Your task to perform on an android device: Empty the shopping cart on ebay. Image 0: 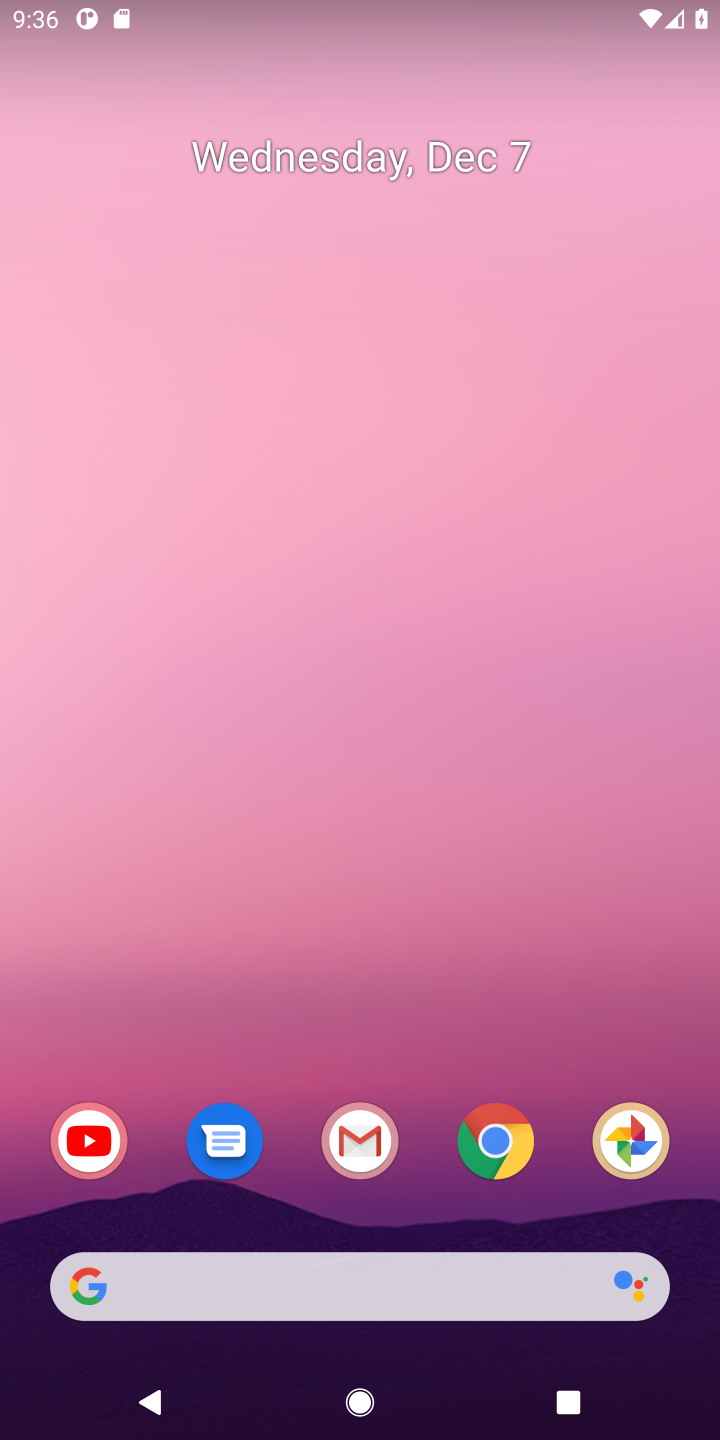
Step 0: press home button
Your task to perform on an android device: Empty the shopping cart on ebay. Image 1: 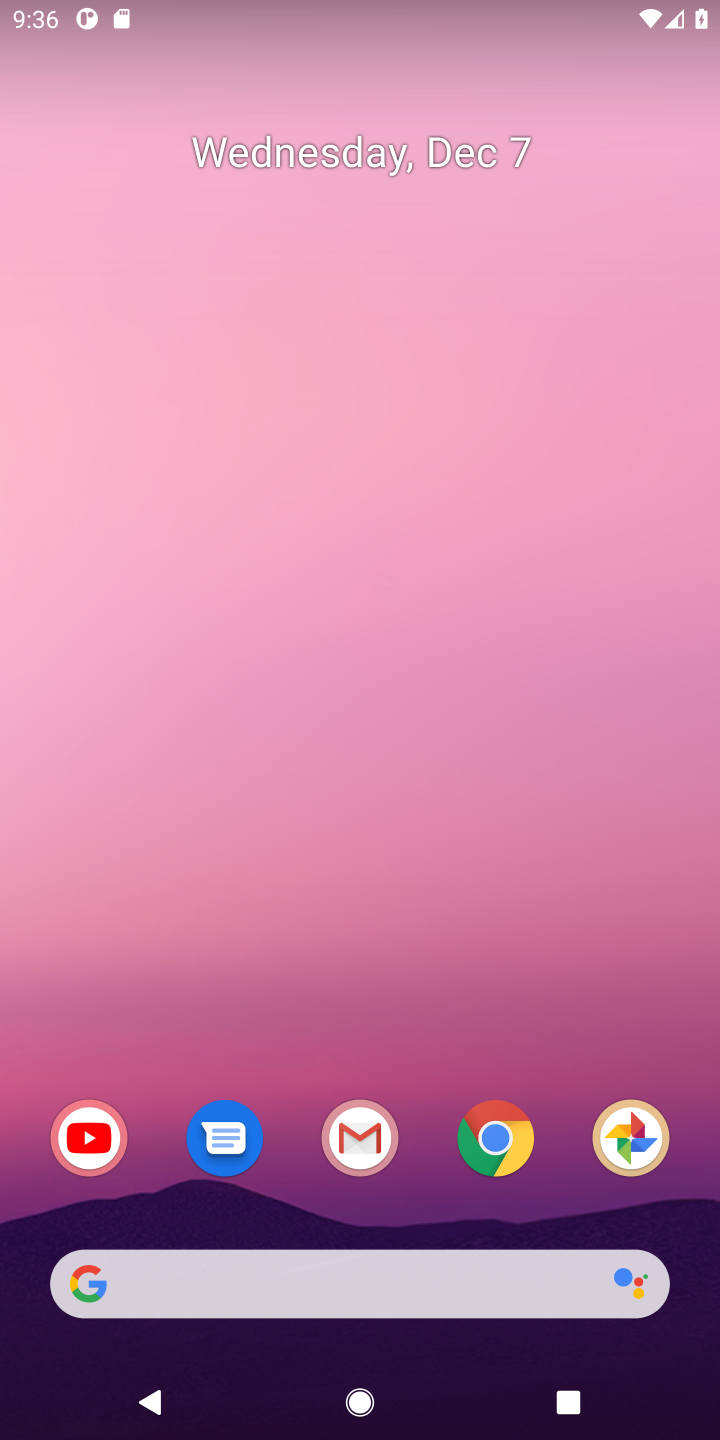
Step 1: click (138, 1283)
Your task to perform on an android device: Empty the shopping cart on ebay. Image 2: 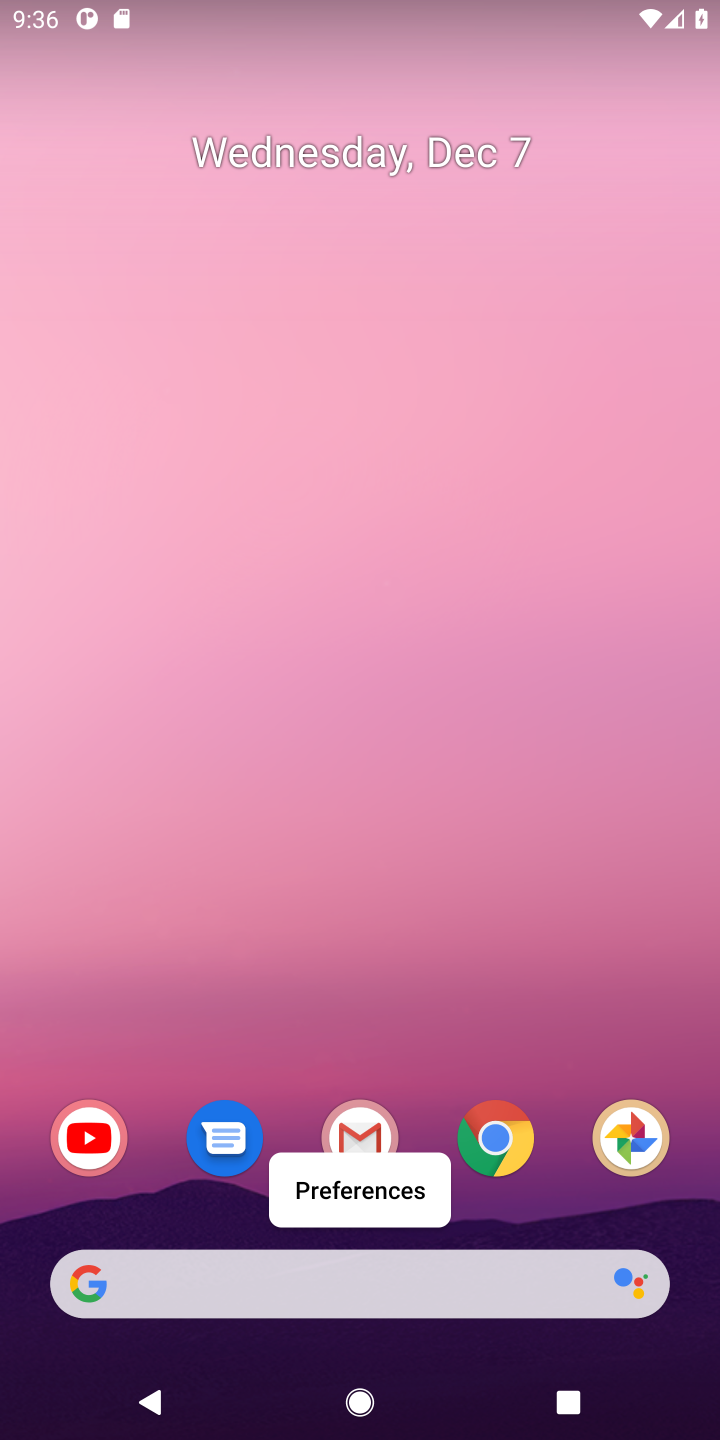
Step 2: click (140, 1277)
Your task to perform on an android device: Empty the shopping cart on ebay. Image 3: 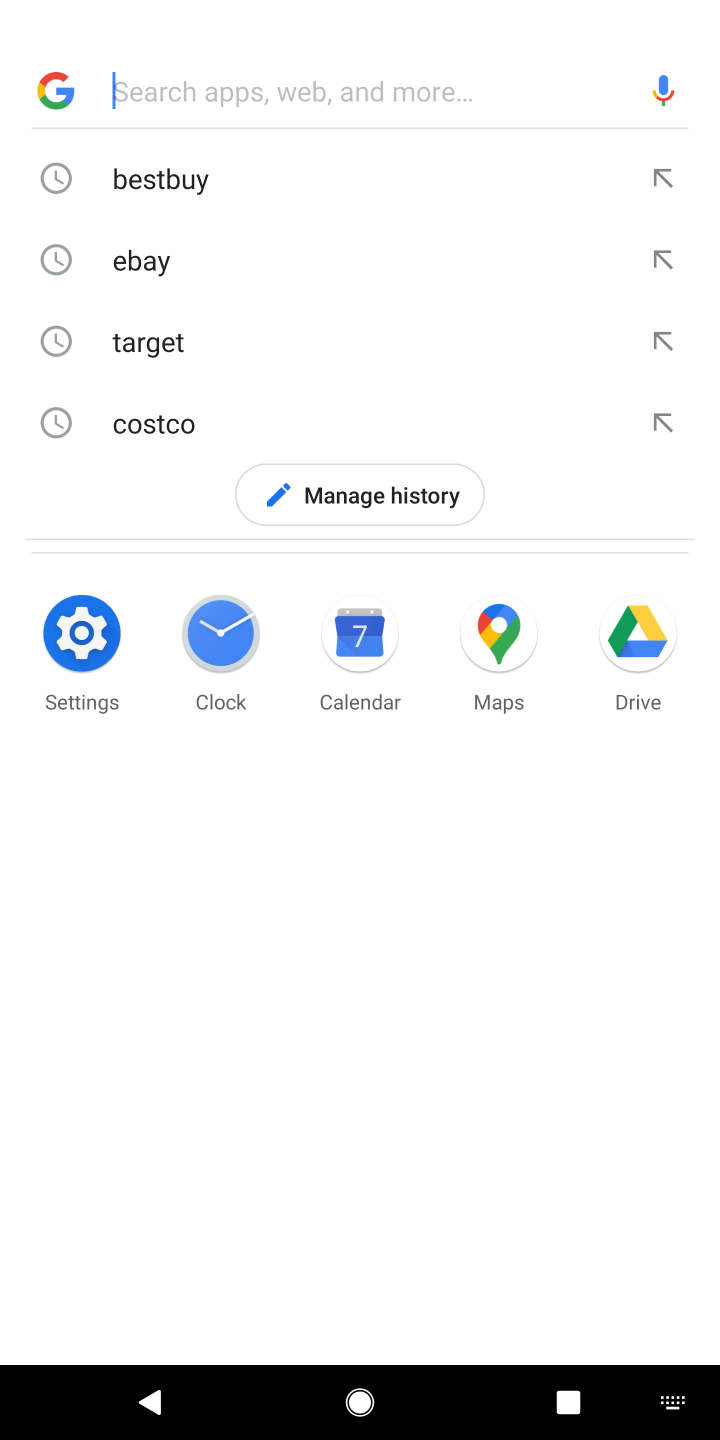
Step 3: type "ebay"
Your task to perform on an android device: Empty the shopping cart on ebay. Image 4: 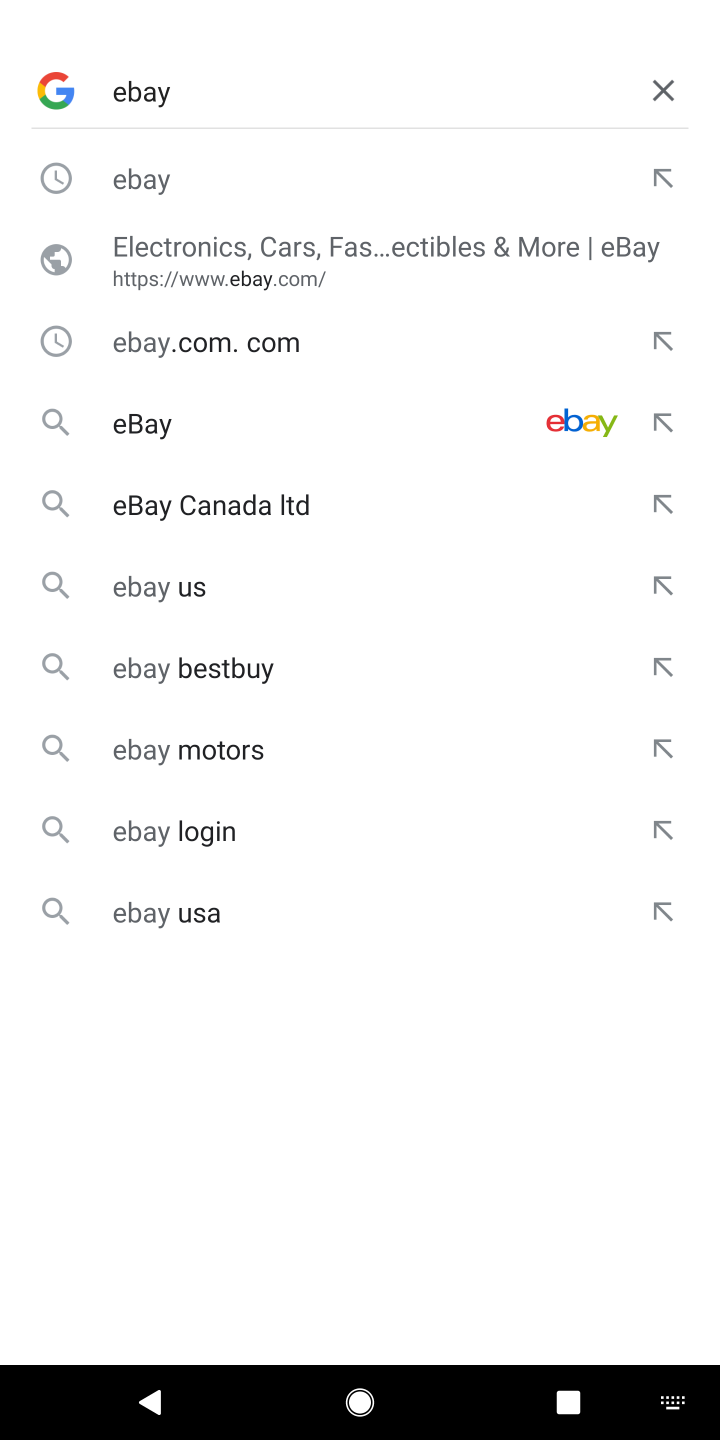
Step 4: press enter
Your task to perform on an android device: Empty the shopping cart on ebay. Image 5: 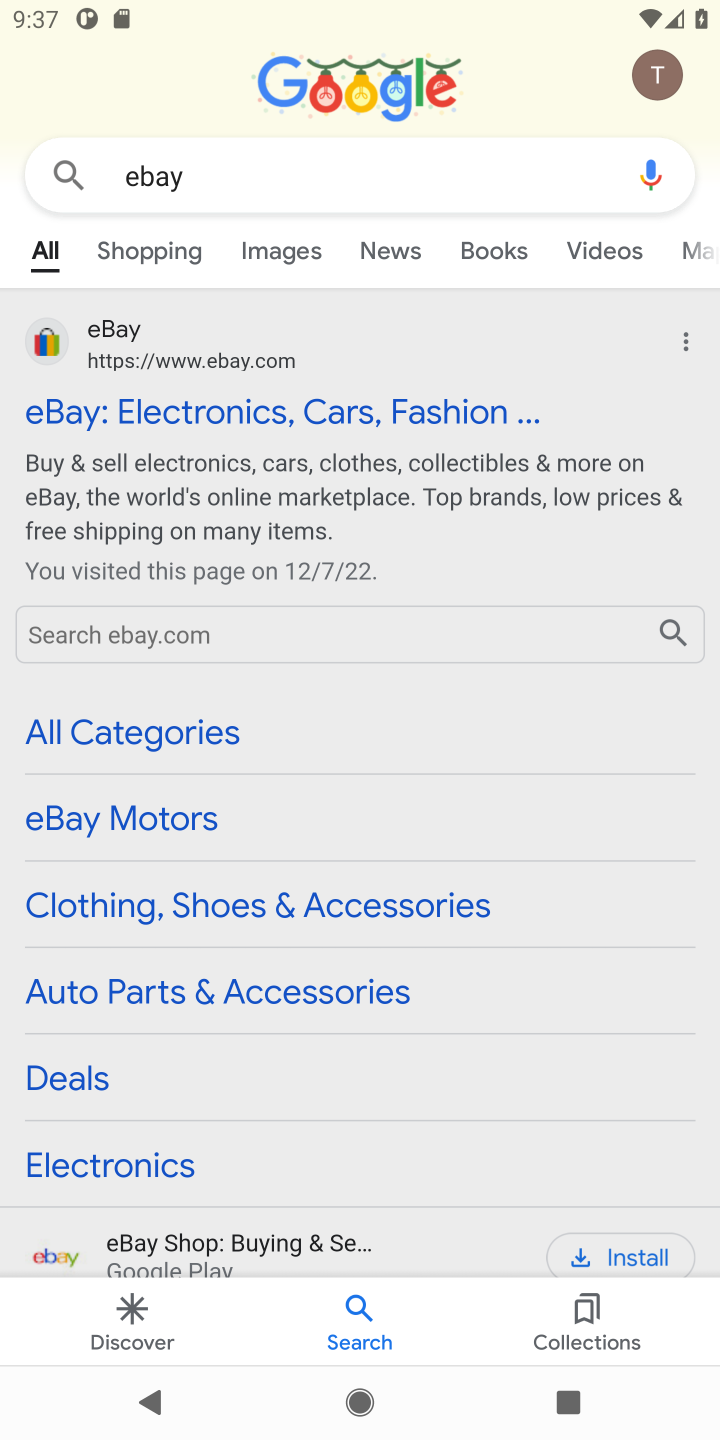
Step 5: click (433, 414)
Your task to perform on an android device: Empty the shopping cart on ebay. Image 6: 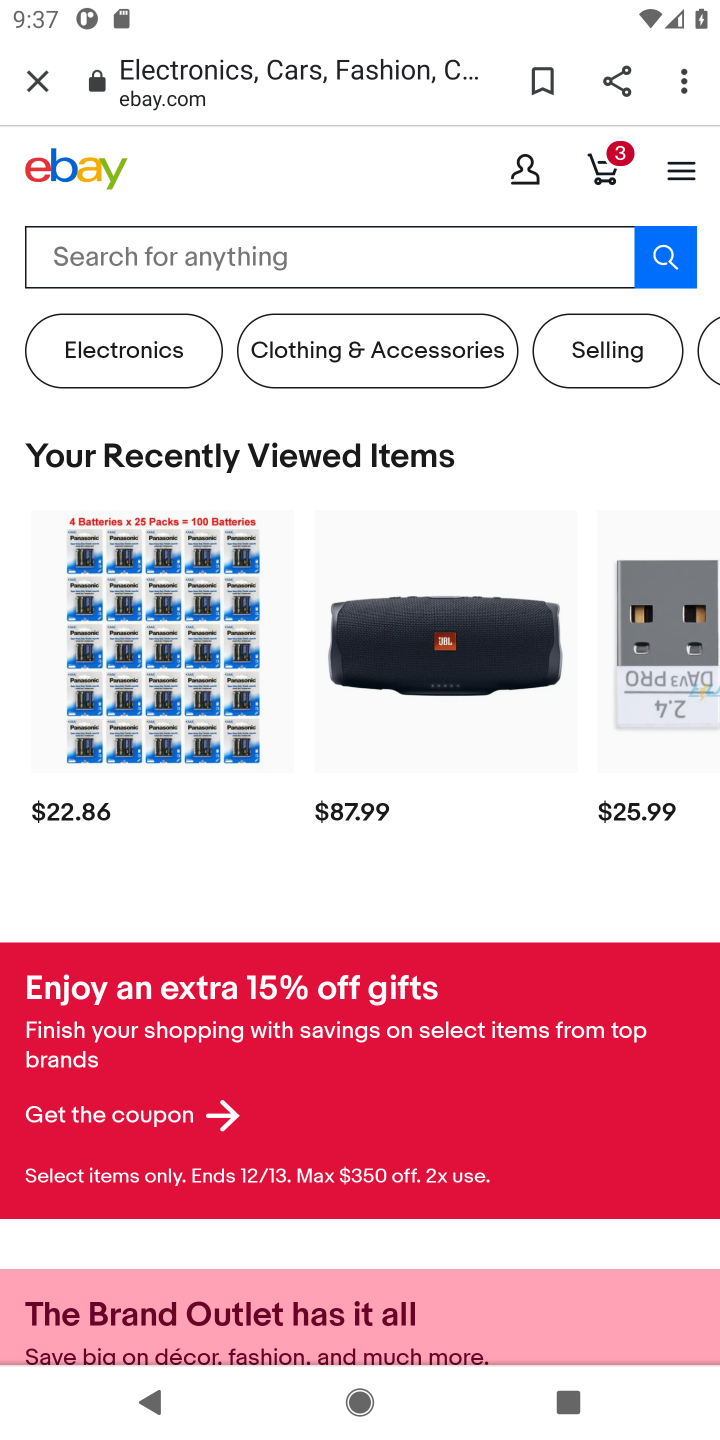
Step 6: click (613, 150)
Your task to perform on an android device: Empty the shopping cart on ebay. Image 7: 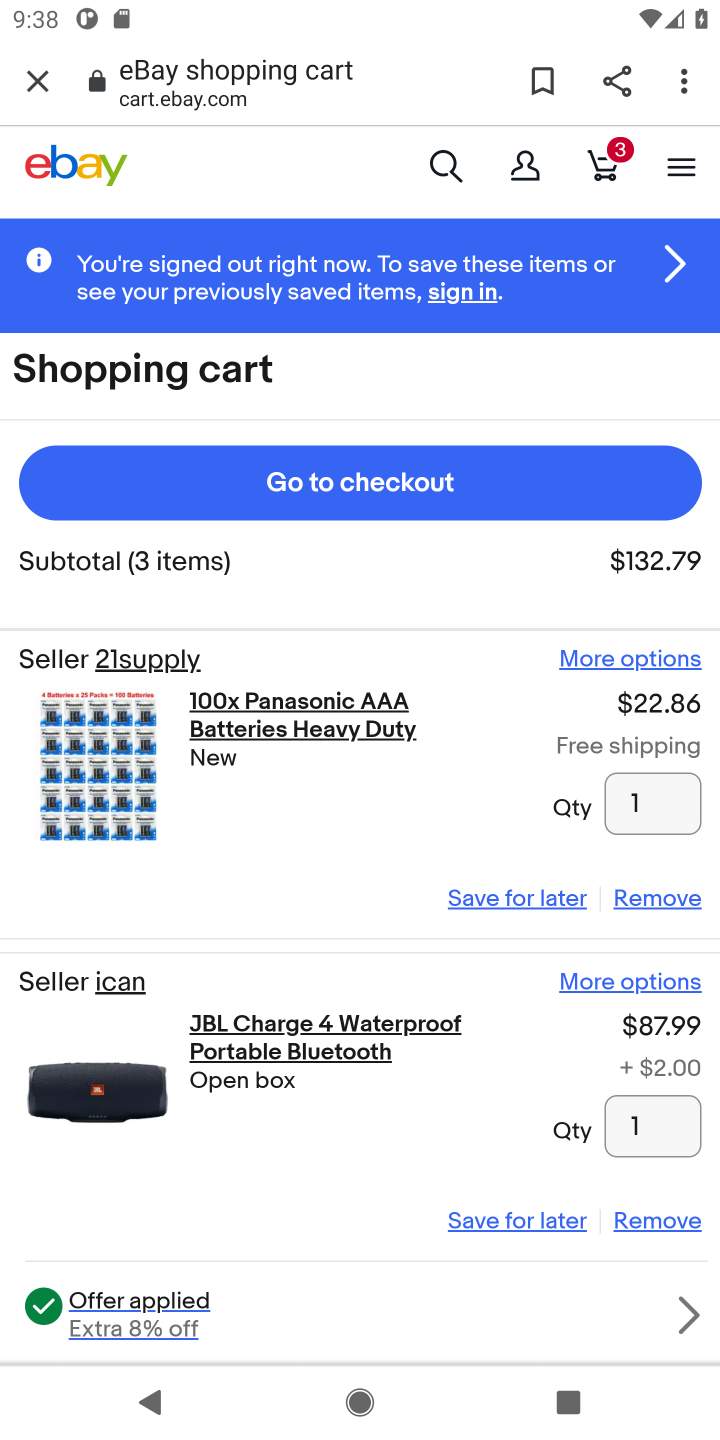
Step 7: click (673, 910)
Your task to perform on an android device: Empty the shopping cart on ebay. Image 8: 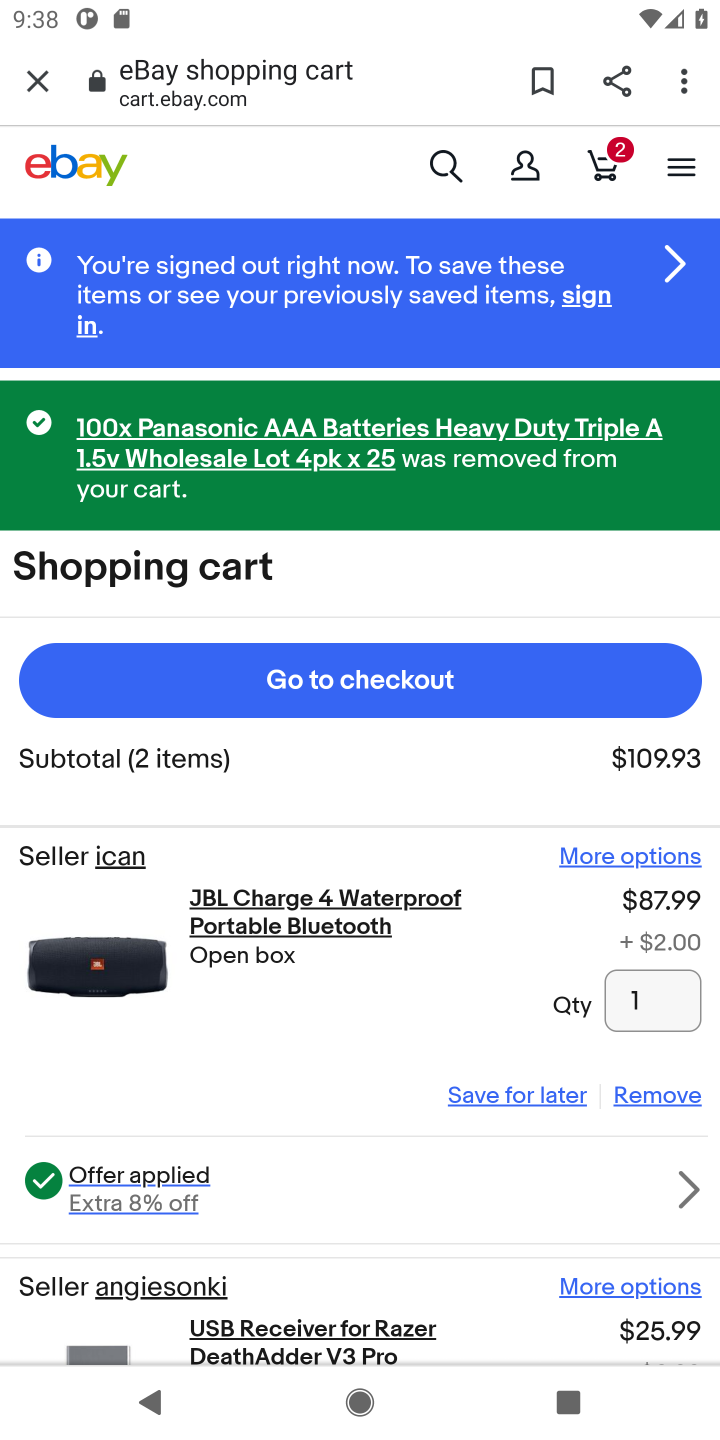
Step 8: click (650, 1088)
Your task to perform on an android device: Empty the shopping cart on ebay. Image 9: 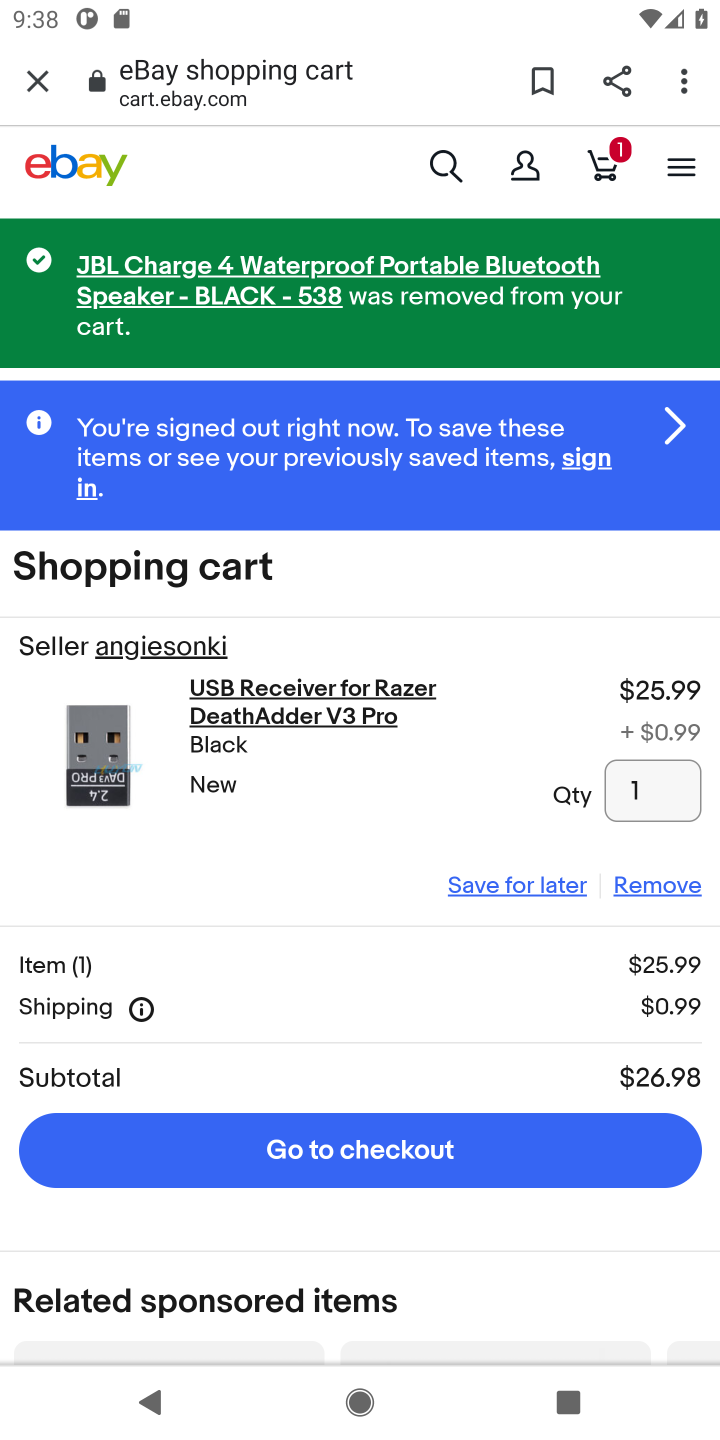
Step 9: click (657, 875)
Your task to perform on an android device: Empty the shopping cart on ebay. Image 10: 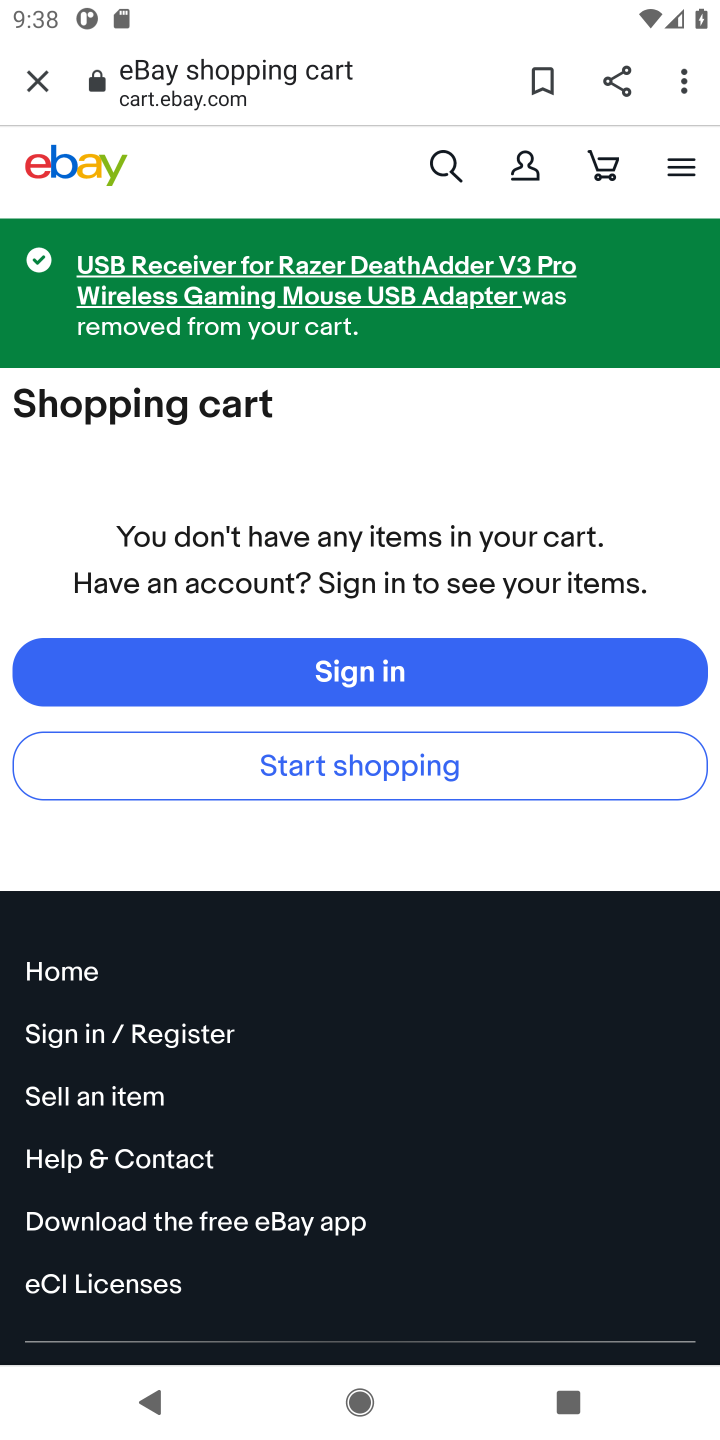
Step 10: task complete